Your task to perform on an android device: see sites visited before in the chrome app Image 0: 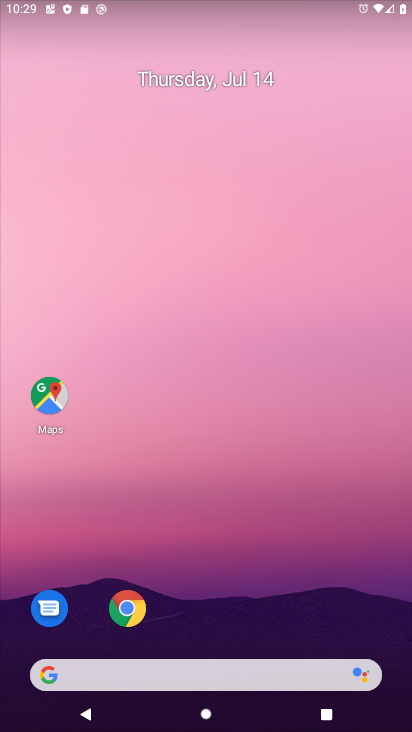
Step 0: click (130, 613)
Your task to perform on an android device: see sites visited before in the chrome app Image 1: 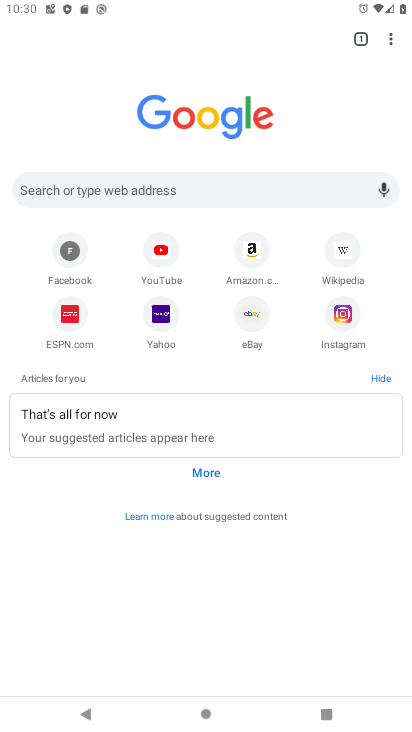
Step 1: click (388, 37)
Your task to perform on an android device: see sites visited before in the chrome app Image 2: 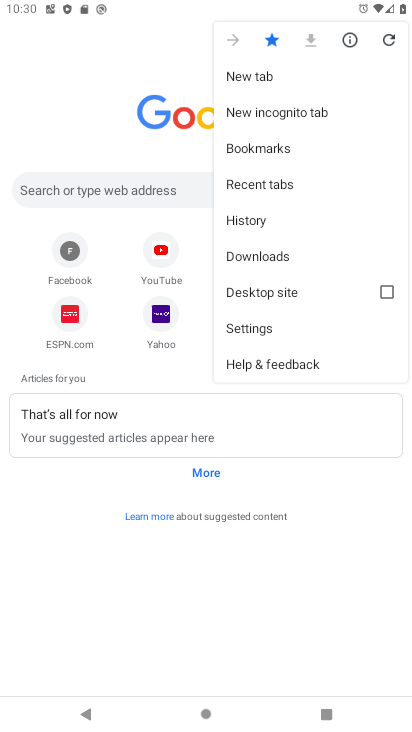
Step 2: click (266, 188)
Your task to perform on an android device: see sites visited before in the chrome app Image 3: 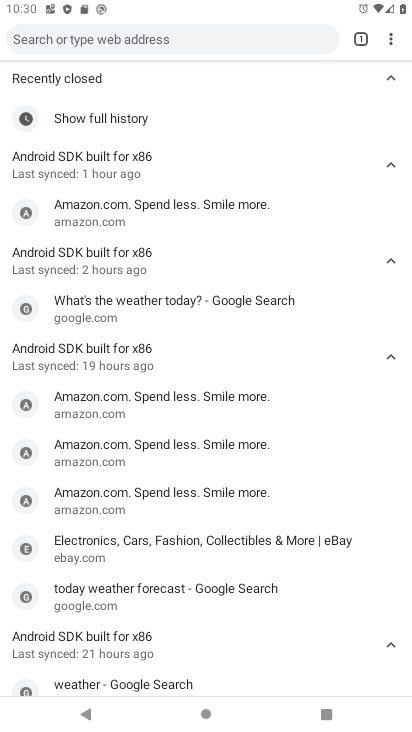
Step 3: task complete